Your task to perform on an android device: Open accessibility settings Image 0: 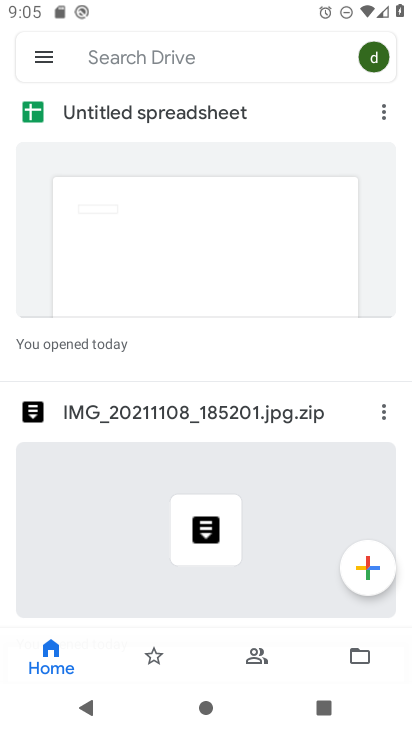
Step 0: press home button
Your task to perform on an android device: Open accessibility settings Image 1: 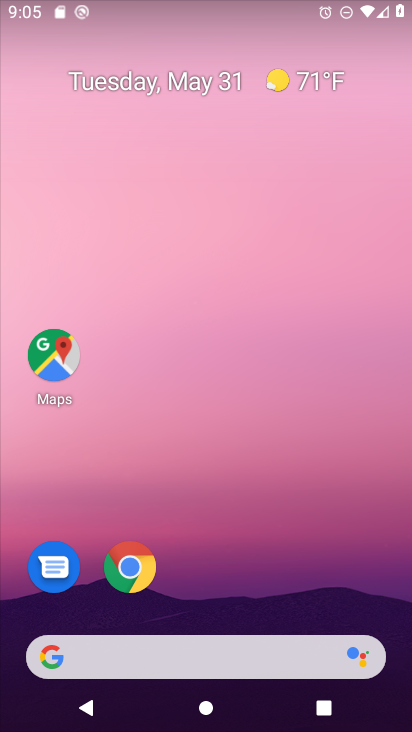
Step 1: drag from (208, 649) to (205, 192)
Your task to perform on an android device: Open accessibility settings Image 2: 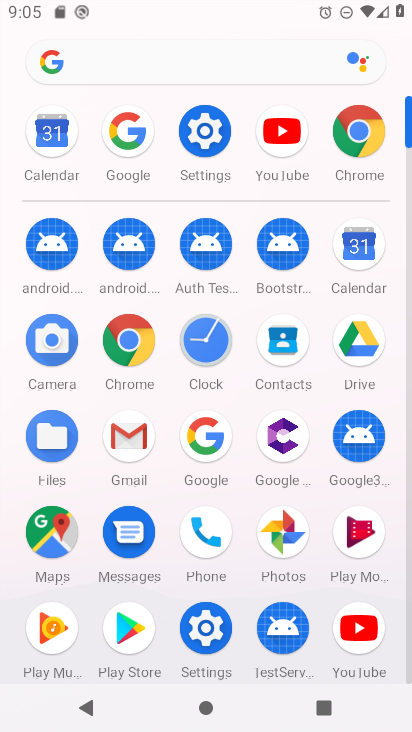
Step 2: click (214, 632)
Your task to perform on an android device: Open accessibility settings Image 3: 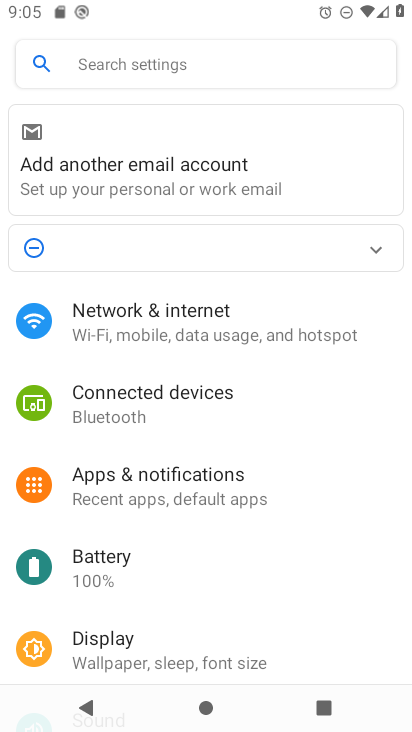
Step 3: drag from (184, 664) to (184, 150)
Your task to perform on an android device: Open accessibility settings Image 4: 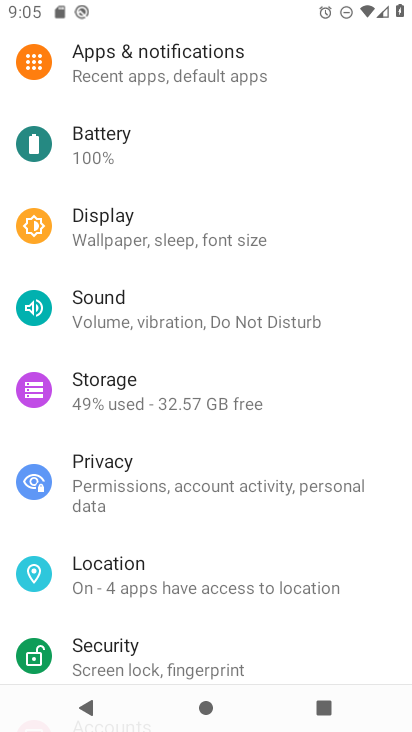
Step 4: drag from (129, 636) to (148, 287)
Your task to perform on an android device: Open accessibility settings Image 5: 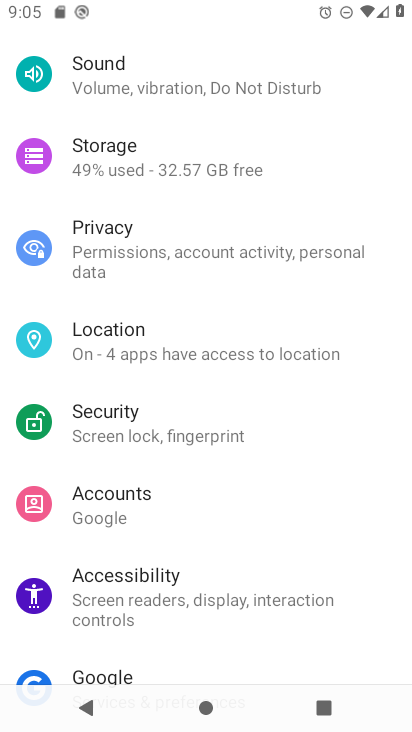
Step 5: click (153, 598)
Your task to perform on an android device: Open accessibility settings Image 6: 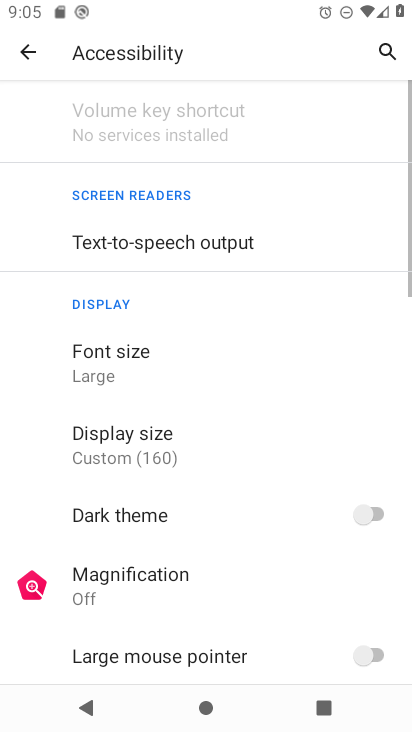
Step 6: task complete